Your task to perform on an android device: Go to sound settings Image 0: 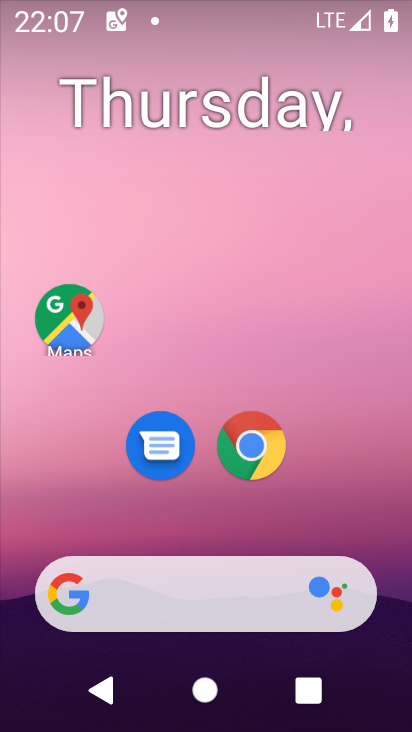
Step 0: drag from (226, 524) to (222, 183)
Your task to perform on an android device: Go to sound settings Image 1: 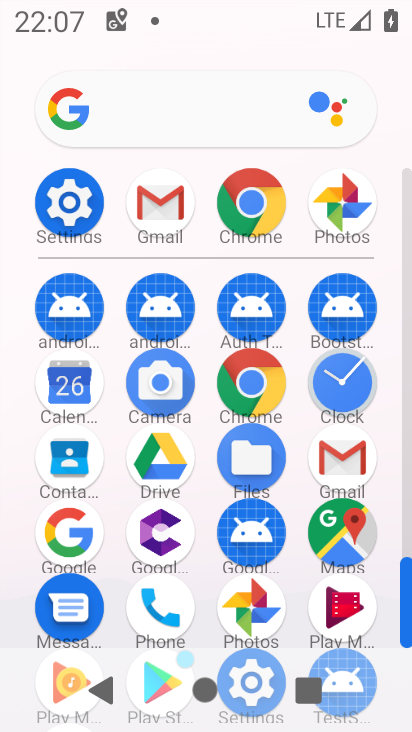
Step 1: drag from (192, 278) to (181, 136)
Your task to perform on an android device: Go to sound settings Image 2: 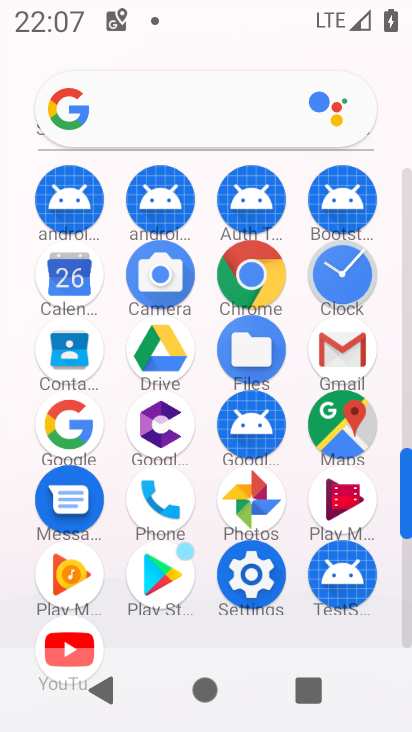
Step 2: click (253, 576)
Your task to perform on an android device: Go to sound settings Image 3: 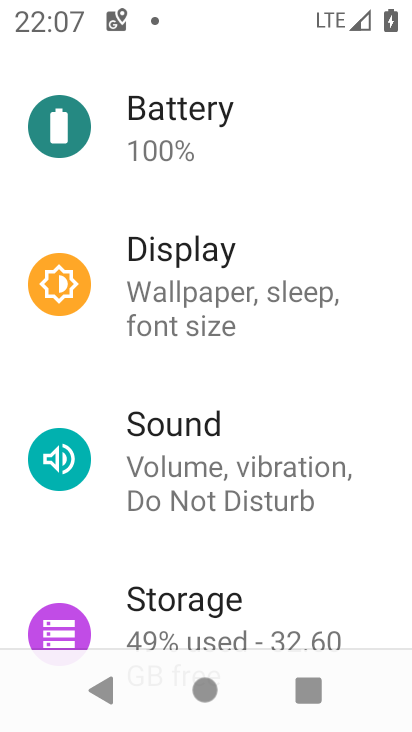
Step 3: click (159, 479)
Your task to perform on an android device: Go to sound settings Image 4: 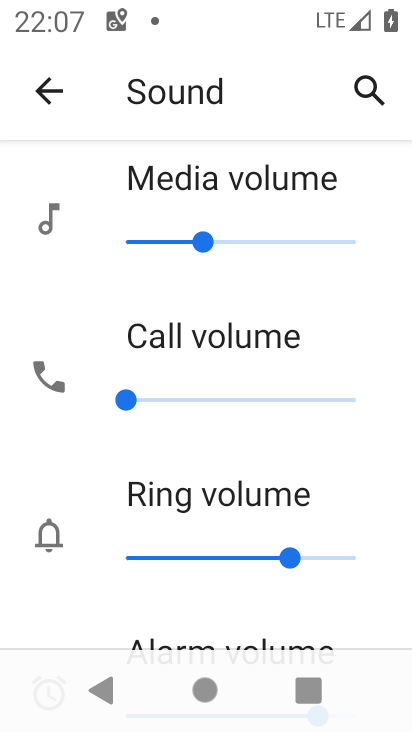
Step 4: task complete